Your task to perform on an android device: Go to network settings Image 0: 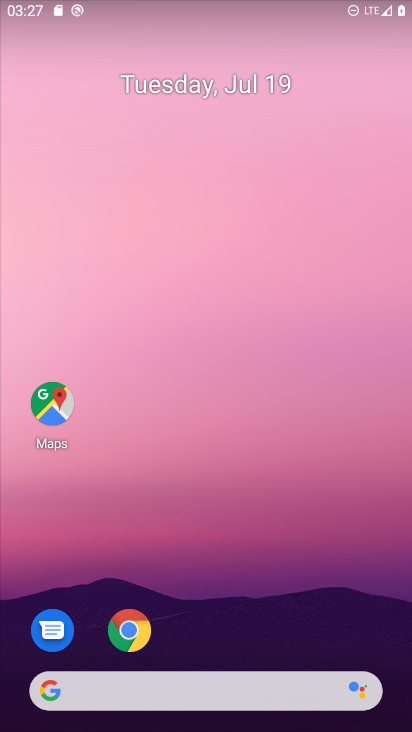
Step 0: drag from (382, 661) to (350, 15)
Your task to perform on an android device: Go to network settings Image 1: 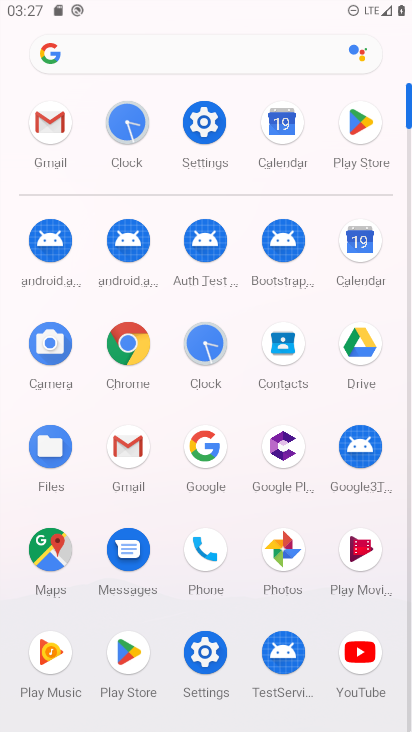
Step 1: click (209, 652)
Your task to perform on an android device: Go to network settings Image 2: 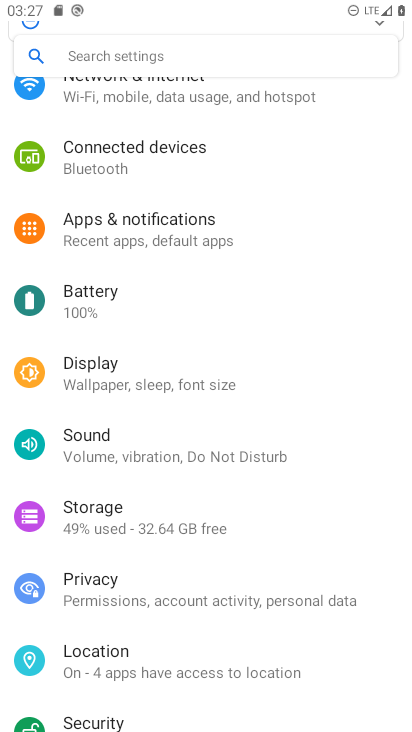
Step 2: drag from (312, 194) to (294, 438)
Your task to perform on an android device: Go to network settings Image 3: 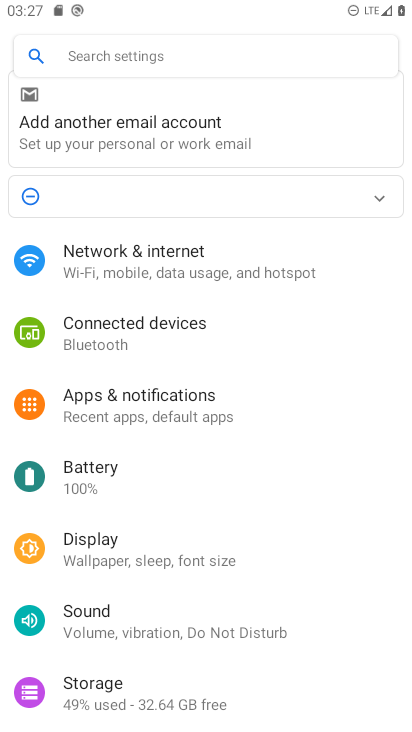
Step 3: click (104, 263)
Your task to perform on an android device: Go to network settings Image 4: 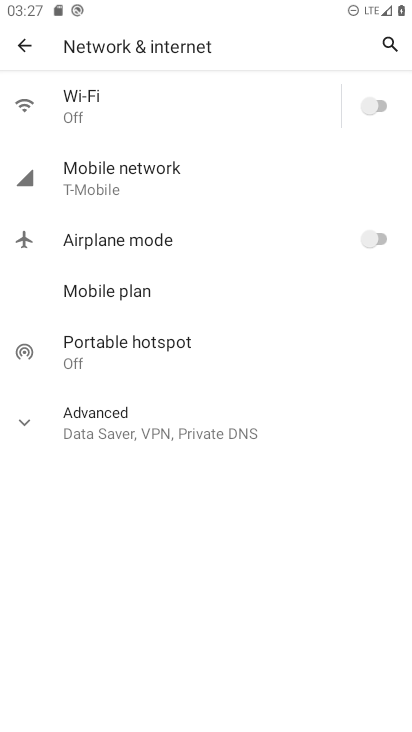
Step 4: click (106, 169)
Your task to perform on an android device: Go to network settings Image 5: 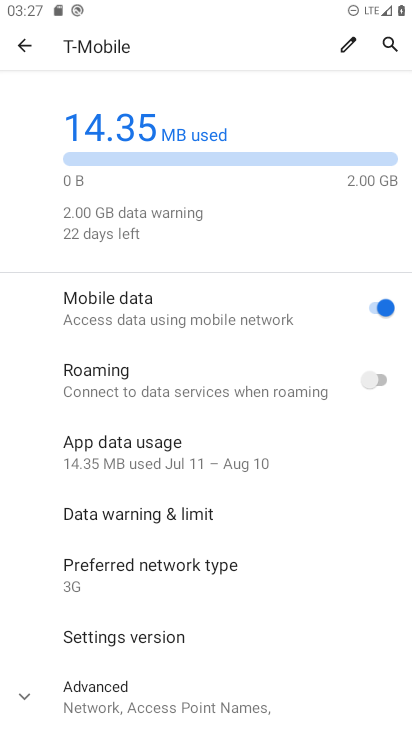
Step 5: task complete